Your task to perform on an android device: Open Google Maps and go to "Timeline" Image 0: 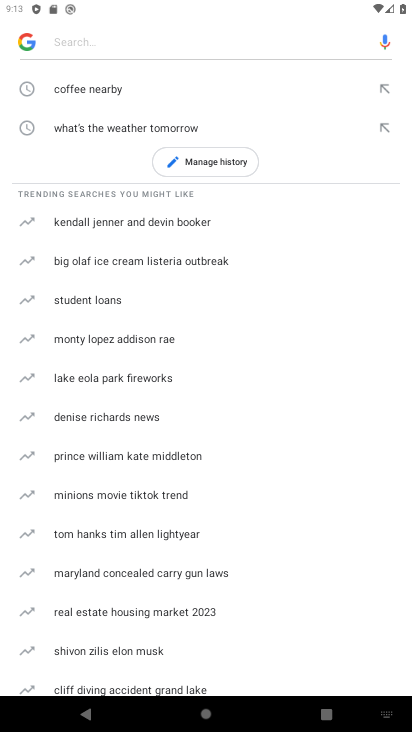
Step 0: press back button
Your task to perform on an android device: Open Google Maps and go to "Timeline" Image 1: 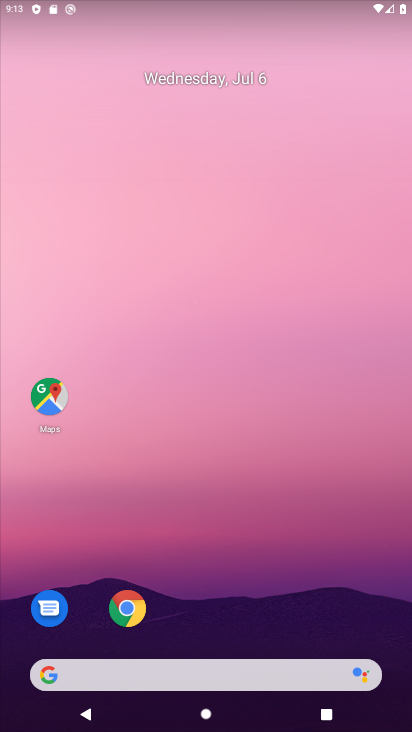
Step 1: drag from (212, 663) to (222, 1)
Your task to perform on an android device: Open Google Maps and go to "Timeline" Image 2: 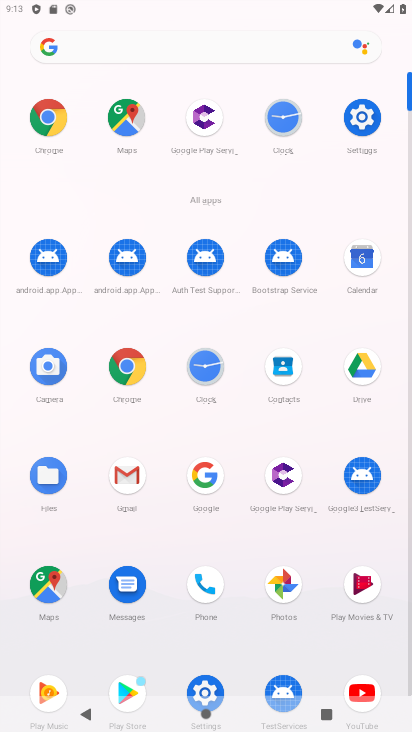
Step 2: click (116, 136)
Your task to perform on an android device: Open Google Maps and go to "Timeline" Image 3: 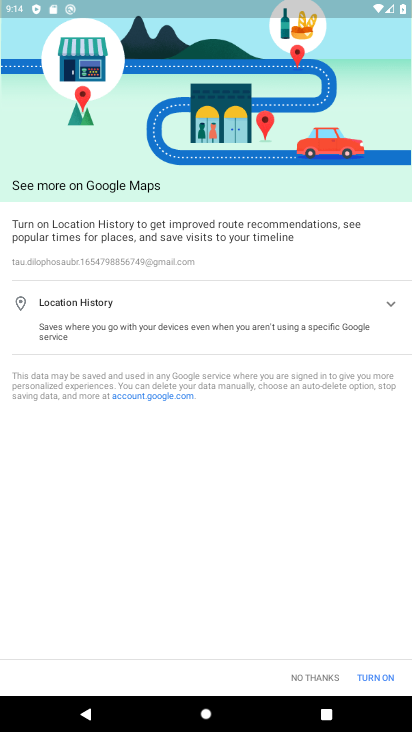
Step 3: click (375, 676)
Your task to perform on an android device: Open Google Maps and go to "Timeline" Image 4: 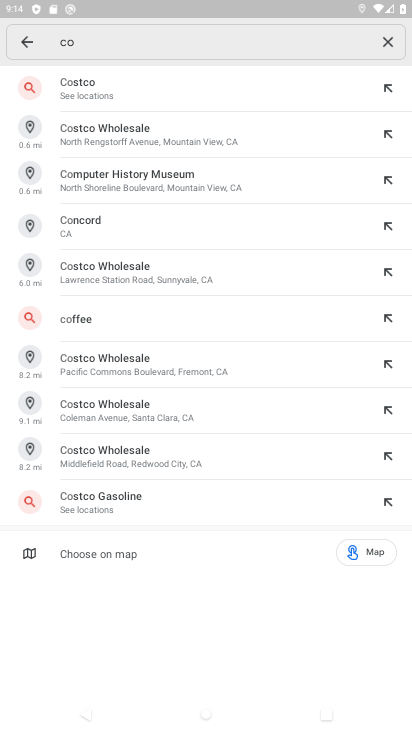
Step 4: click (26, 43)
Your task to perform on an android device: Open Google Maps and go to "Timeline" Image 5: 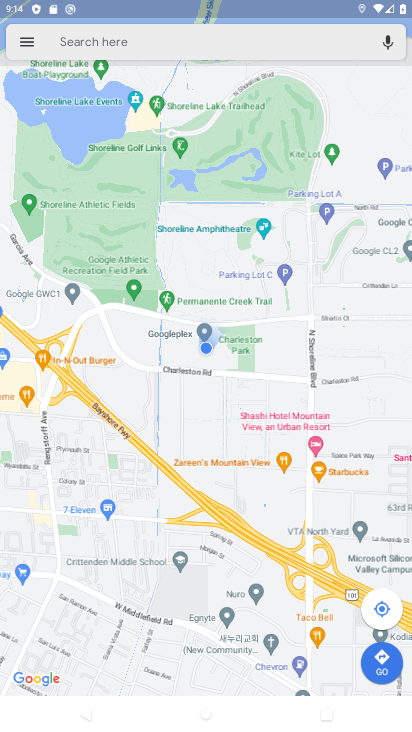
Step 5: click (35, 51)
Your task to perform on an android device: Open Google Maps and go to "Timeline" Image 6: 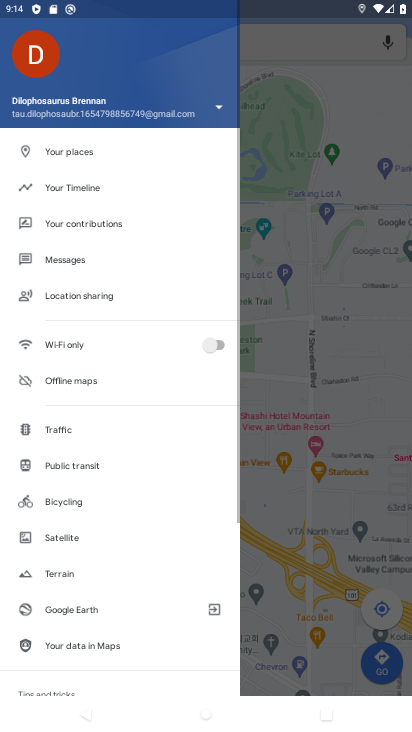
Step 6: click (78, 186)
Your task to perform on an android device: Open Google Maps and go to "Timeline" Image 7: 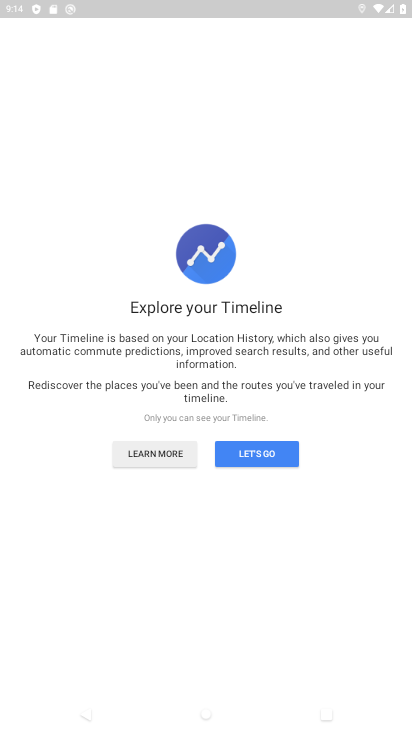
Step 7: click (274, 458)
Your task to perform on an android device: Open Google Maps and go to "Timeline" Image 8: 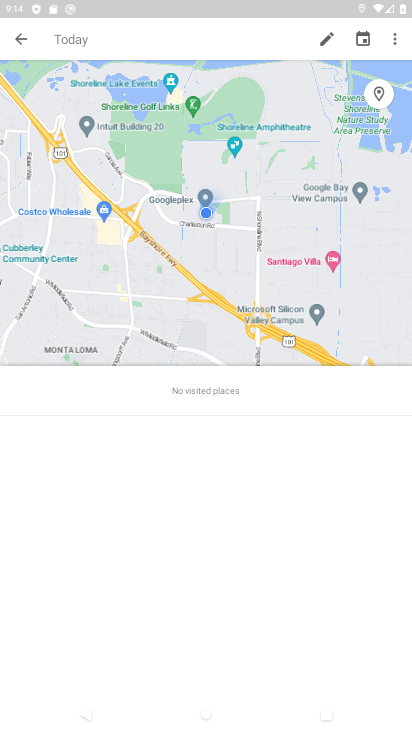
Step 8: task complete